Your task to perform on an android device: uninstall "DoorDash - Food Delivery" Image 0: 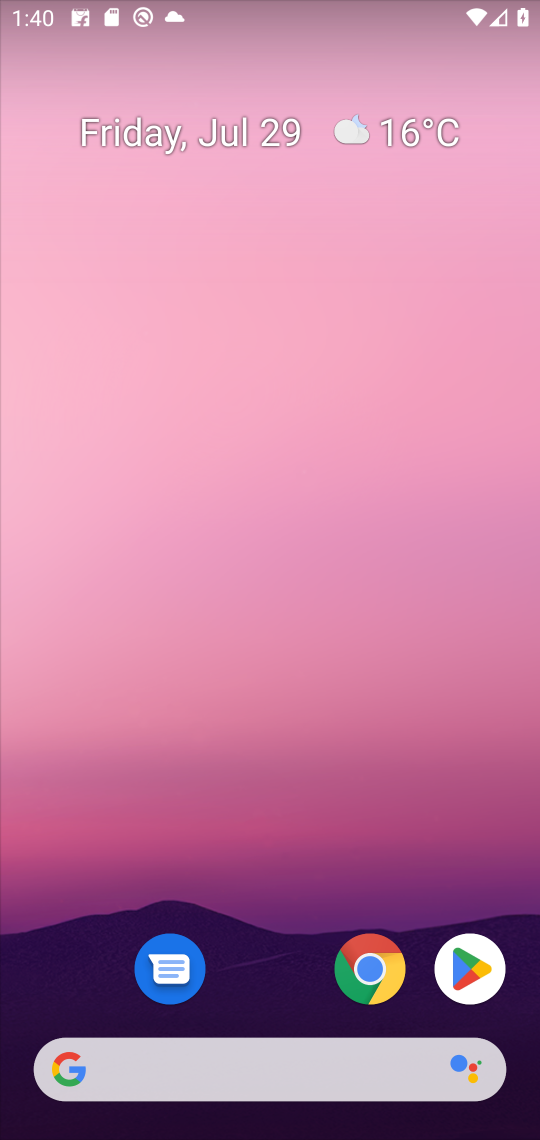
Step 0: click (461, 976)
Your task to perform on an android device: uninstall "DoorDash - Food Delivery" Image 1: 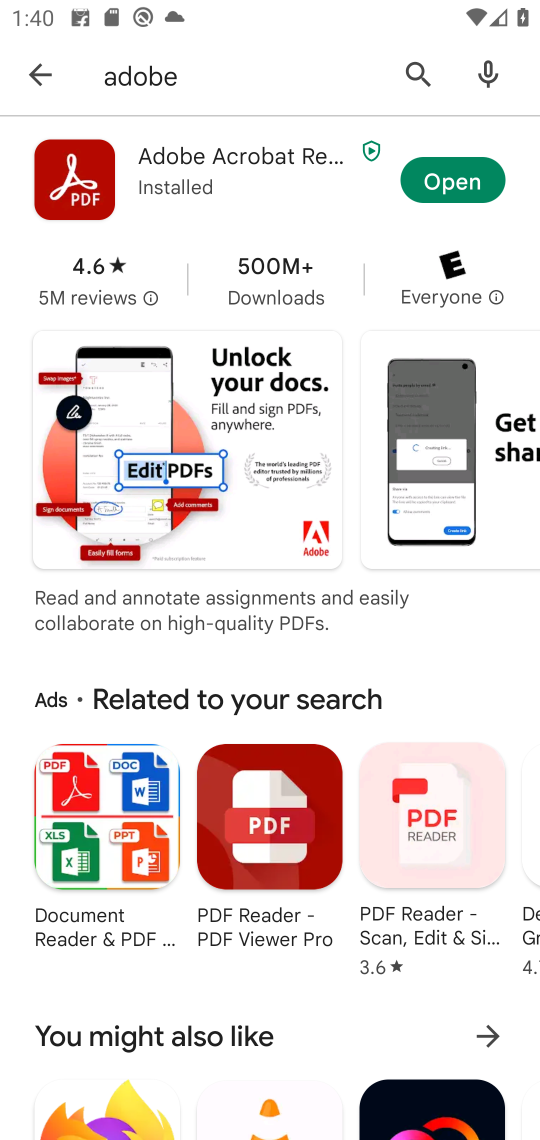
Step 1: click (410, 77)
Your task to perform on an android device: uninstall "DoorDash - Food Delivery" Image 2: 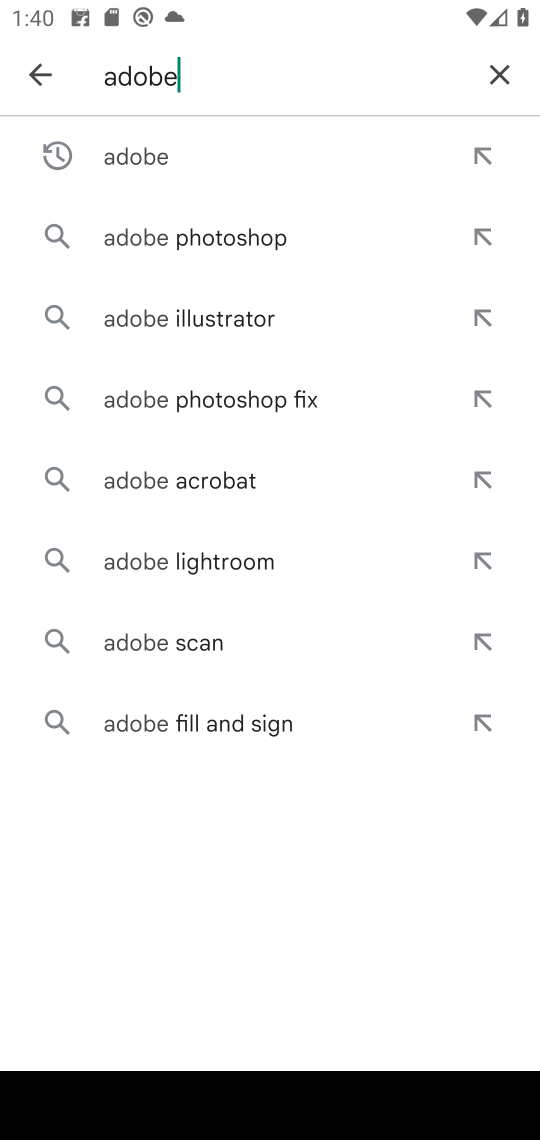
Step 2: click (497, 75)
Your task to perform on an android device: uninstall "DoorDash - Food Delivery" Image 3: 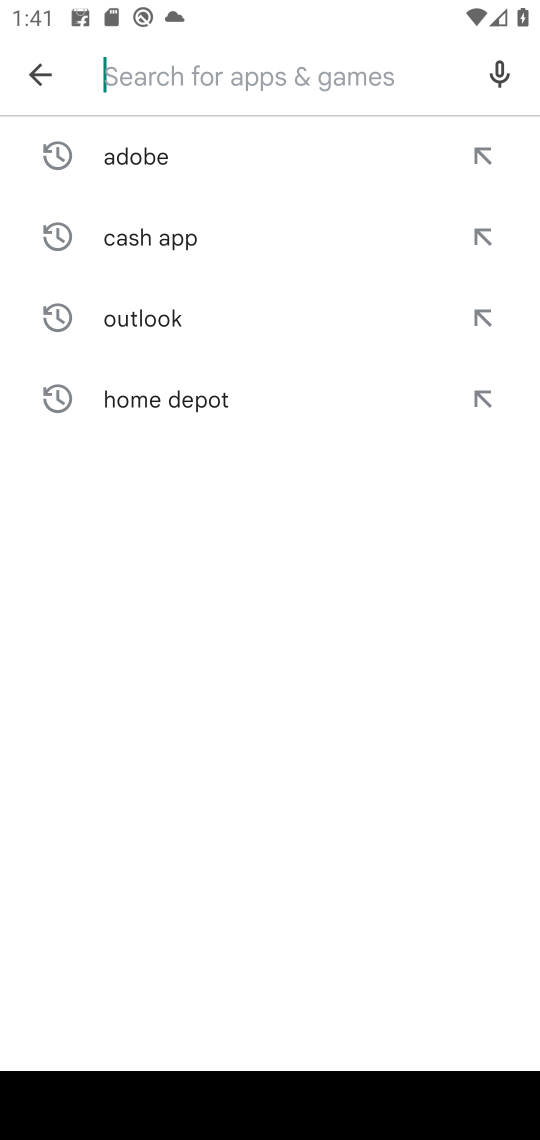
Step 3: type "doordash"
Your task to perform on an android device: uninstall "DoorDash - Food Delivery" Image 4: 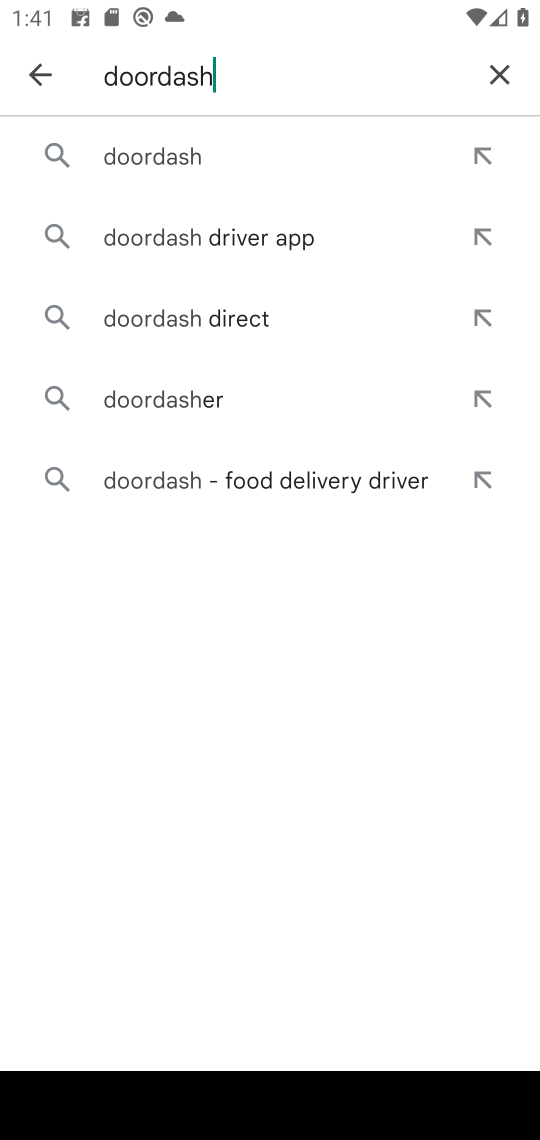
Step 4: click (151, 152)
Your task to perform on an android device: uninstall "DoorDash - Food Delivery" Image 5: 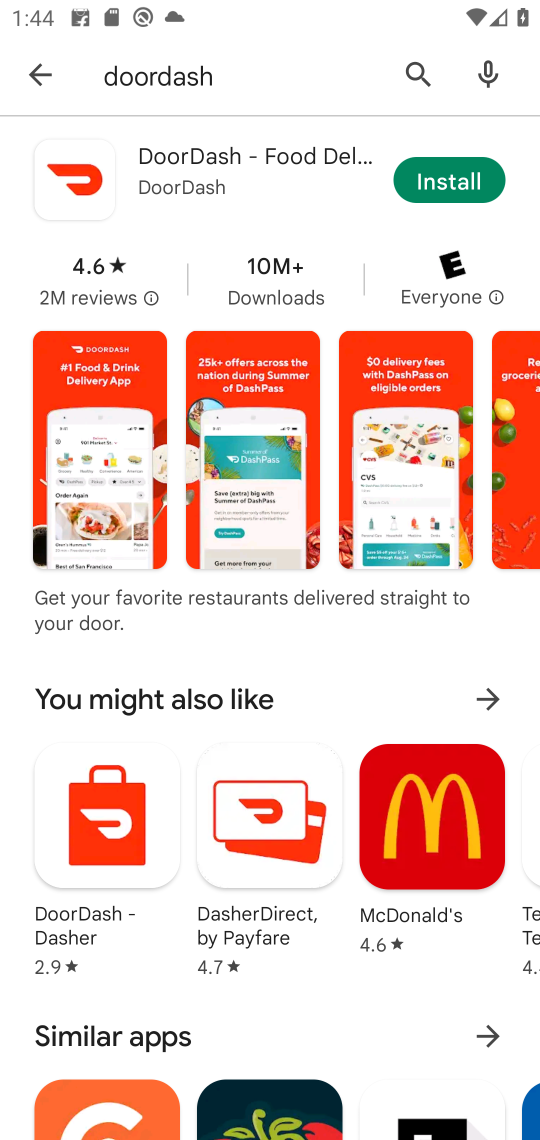
Step 5: task complete